Your task to perform on an android device: Play the last video I watched on Youtube Image 0: 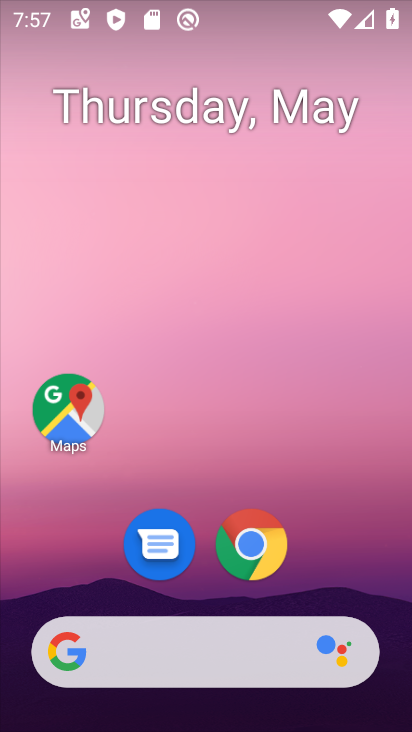
Step 0: drag from (397, 669) to (360, 5)
Your task to perform on an android device: Play the last video I watched on Youtube Image 1: 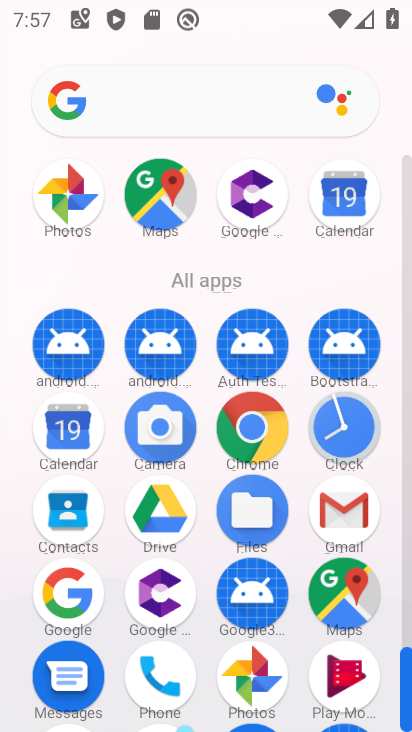
Step 1: click (403, 709)
Your task to perform on an android device: Play the last video I watched on Youtube Image 2: 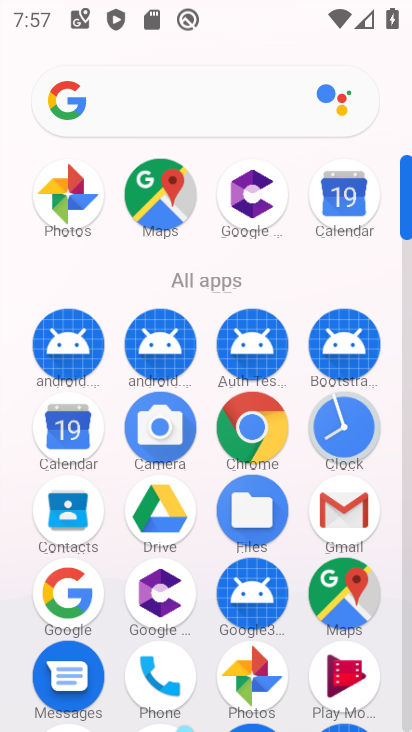
Step 2: click (411, 725)
Your task to perform on an android device: Play the last video I watched on Youtube Image 3: 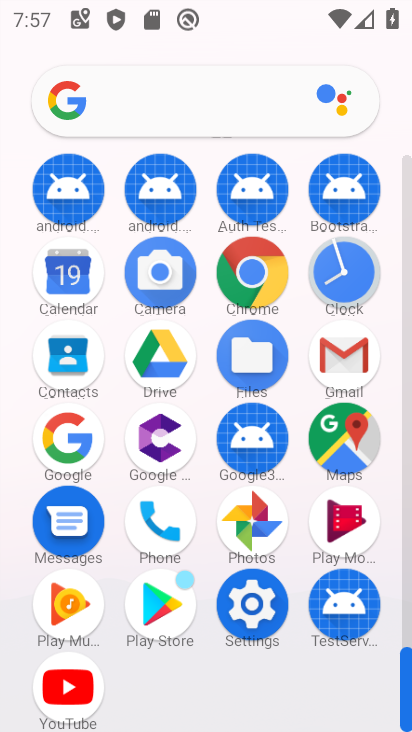
Step 3: click (64, 704)
Your task to perform on an android device: Play the last video I watched on Youtube Image 4: 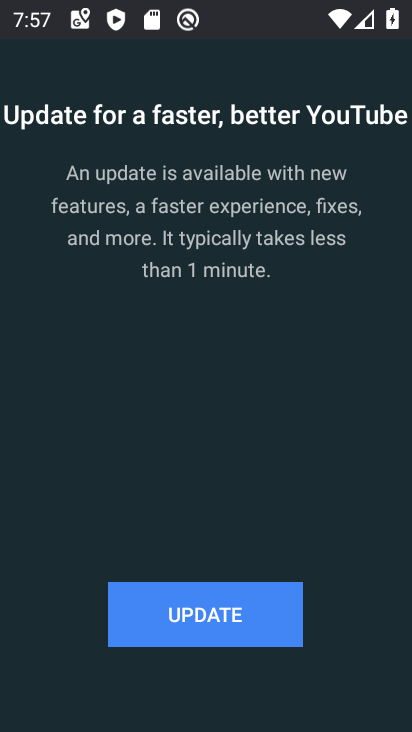
Step 4: click (145, 630)
Your task to perform on an android device: Play the last video I watched on Youtube Image 5: 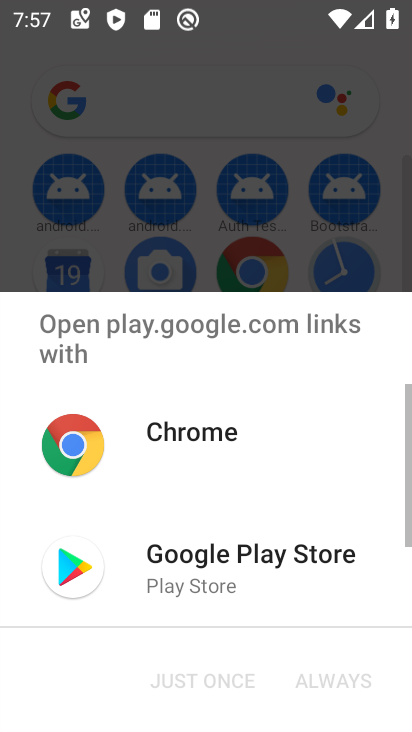
Step 5: click (130, 589)
Your task to perform on an android device: Play the last video I watched on Youtube Image 6: 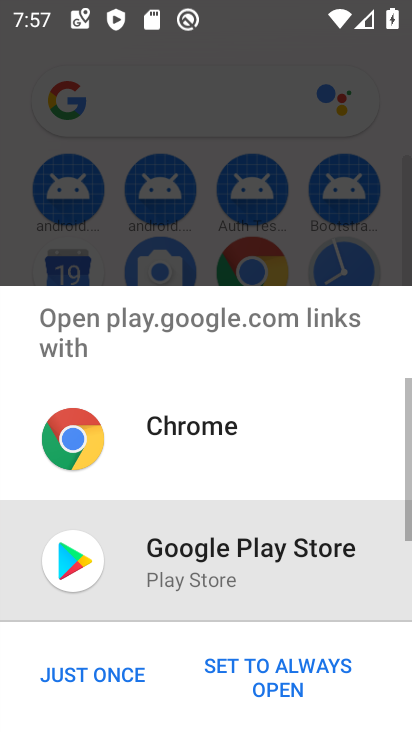
Step 6: click (88, 677)
Your task to perform on an android device: Play the last video I watched on Youtube Image 7: 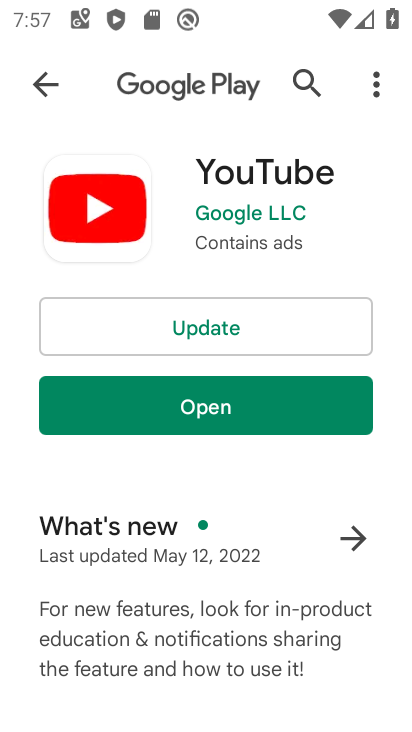
Step 7: click (234, 334)
Your task to perform on an android device: Play the last video I watched on Youtube Image 8: 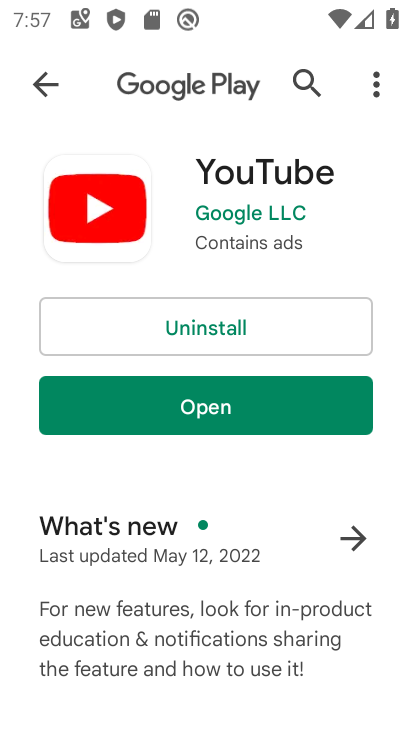
Step 8: click (243, 414)
Your task to perform on an android device: Play the last video I watched on Youtube Image 9: 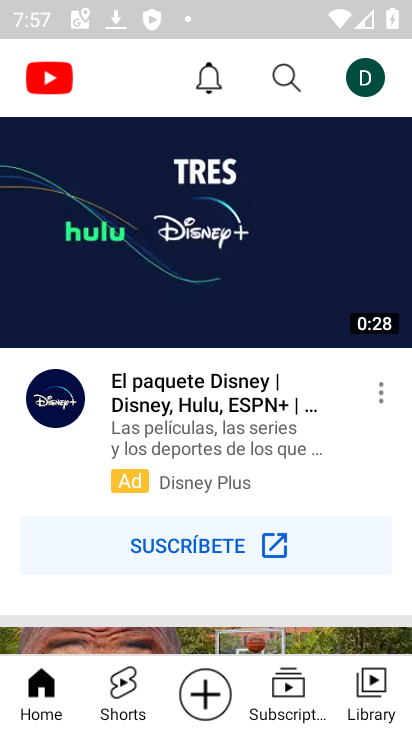
Step 9: click (393, 683)
Your task to perform on an android device: Play the last video I watched on Youtube Image 10: 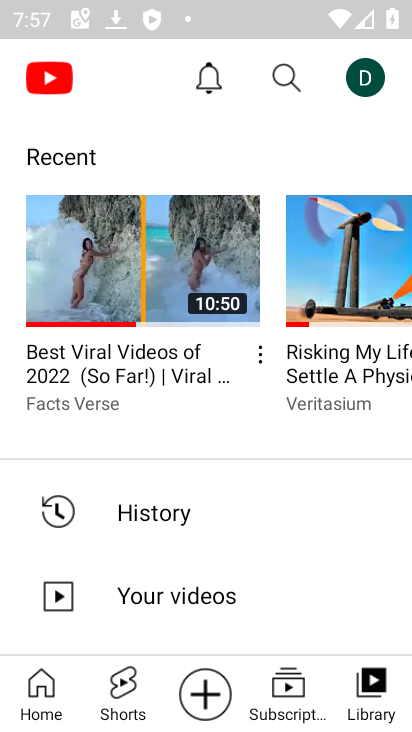
Step 10: click (202, 392)
Your task to perform on an android device: Play the last video I watched on Youtube Image 11: 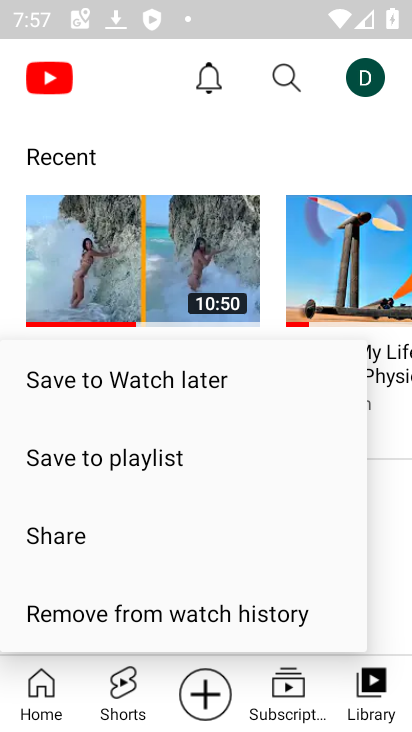
Step 11: click (182, 286)
Your task to perform on an android device: Play the last video I watched on Youtube Image 12: 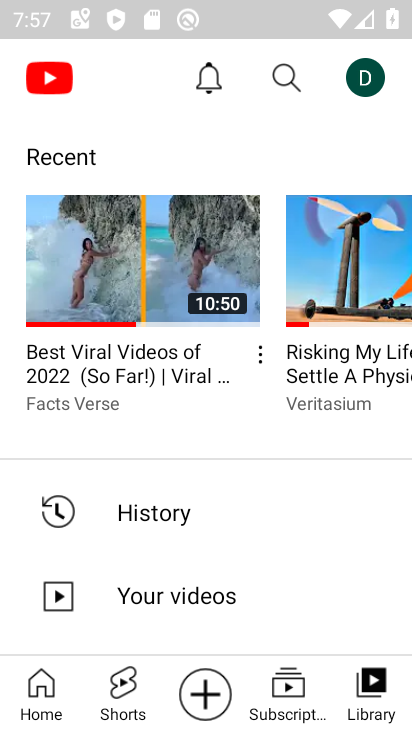
Step 12: click (182, 286)
Your task to perform on an android device: Play the last video I watched on Youtube Image 13: 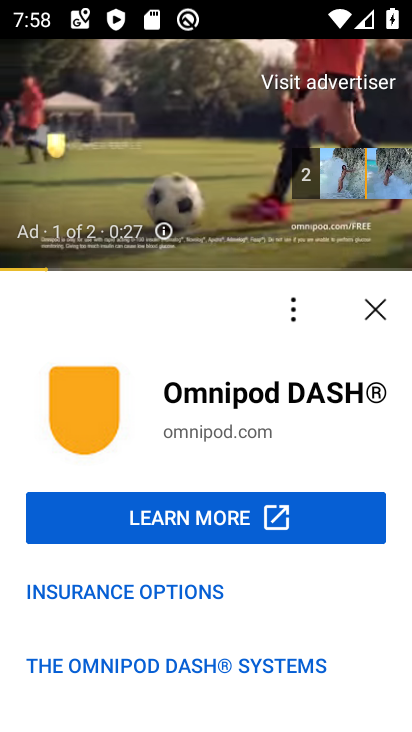
Step 13: click (371, 304)
Your task to perform on an android device: Play the last video I watched on Youtube Image 14: 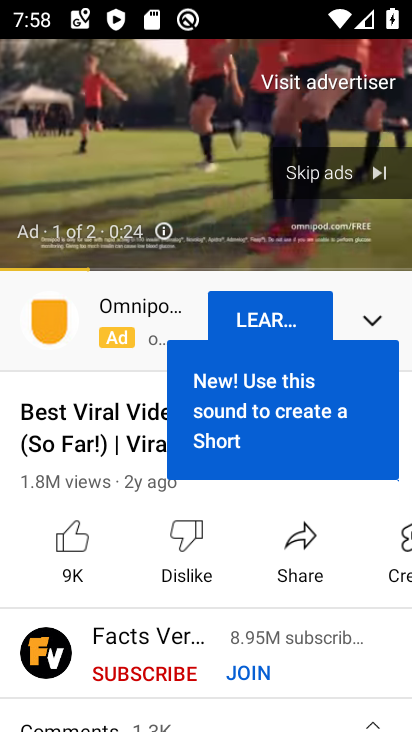
Step 14: click (374, 182)
Your task to perform on an android device: Play the last video I watched on Youtube Image 15: 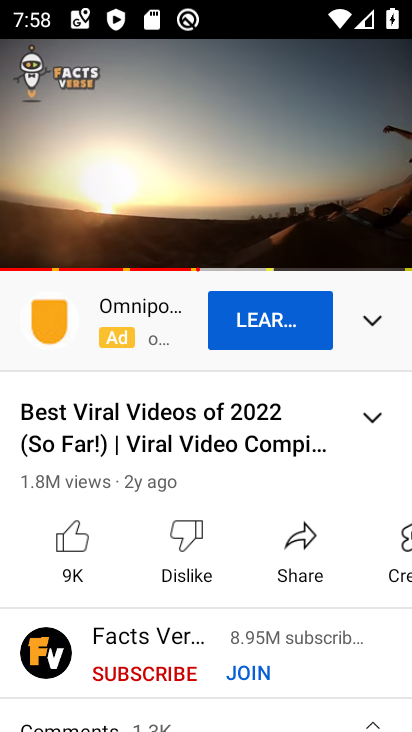
Step 15: task complete